Your task to perform on an android device: turn off sleep mode Image 0: 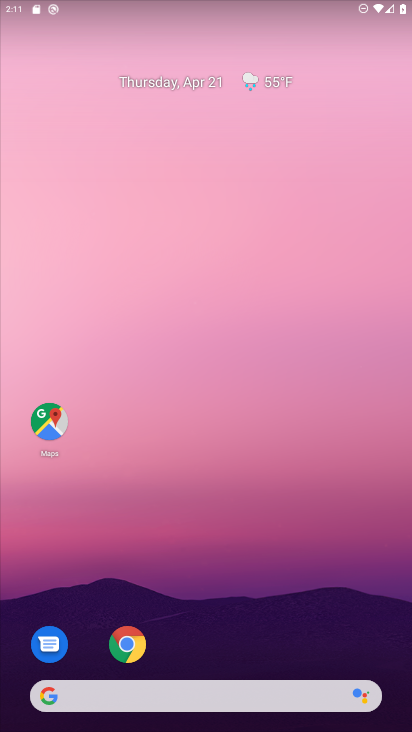
Step 0: drag from (275, 596) to (231, 149)
Your task to perform on an android device: turn off sleep mode Image 1: 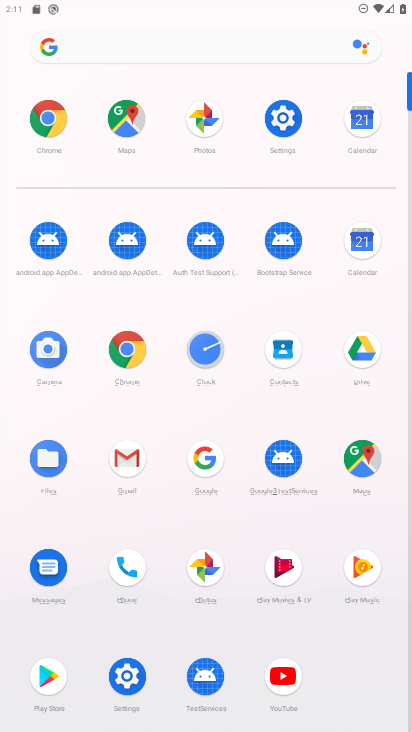
Step 1: click (296, 121)
Your task to perform on an android device: turn off sleep mode Image 2: 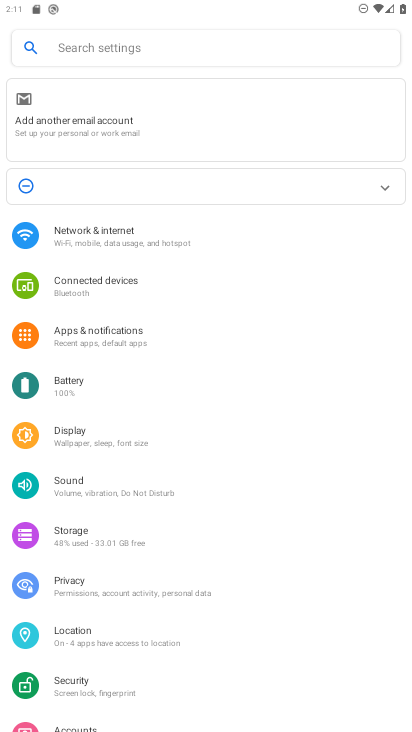
Step 2: click (172, 447)
Your task to perform on an android device: turn off sleep mode Image 3: 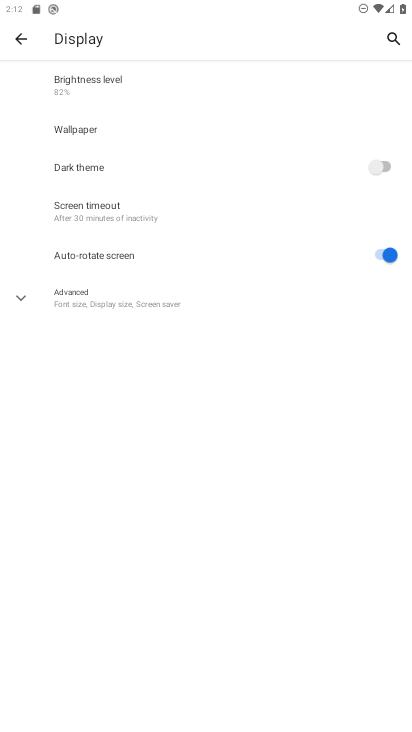
Step 3: click (219, 297)
Your task to perform on an android device: turn off sleep mode Image 4: 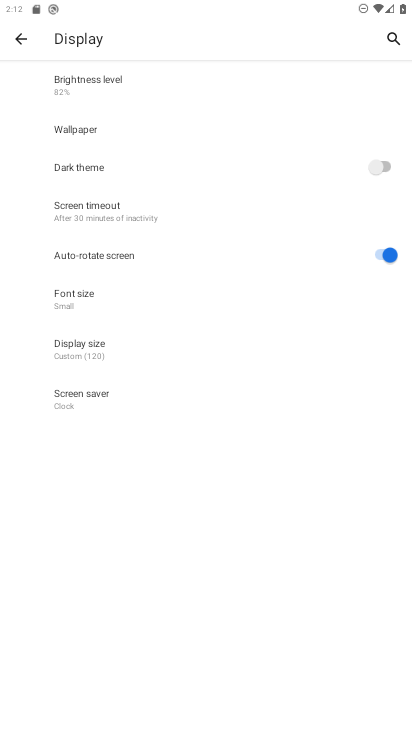
Step 4: task complete